Your task to perform on an android device: Search for sushi restaurants on Maps Image 0: 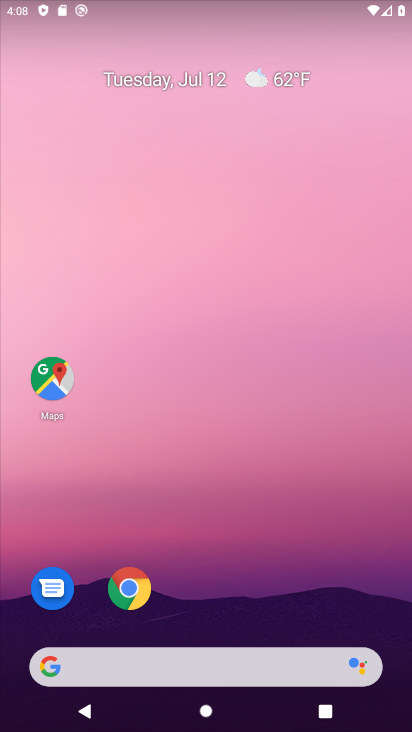
Step 0: click (211, 60)
Your task to perform on an android device: Search for sushi restaurants on Maps Image 1: 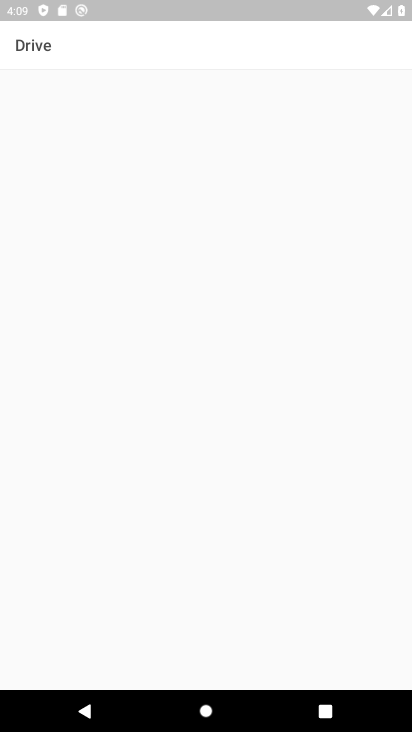
Step 1: press home button
Your task to perform on an android device: Search for sushi restaurants on Maps Image 2: 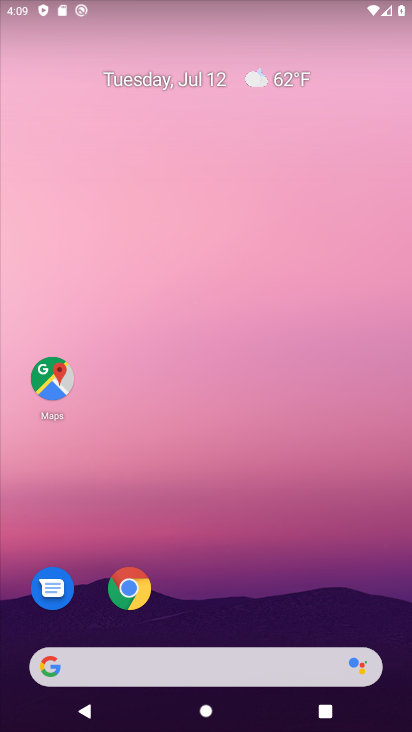
Step 2: drag from (175, 650) to (291, 43)
Your task to perform on an android device: Search for sushi restaurants on Maps Image 3: 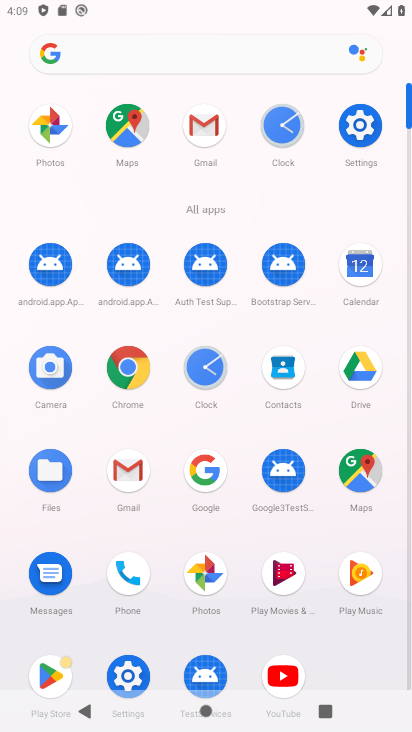
Step 3: click (360, 477)
Your task to perform on an android device: Search for sushi restaurants on Maps Image 4: 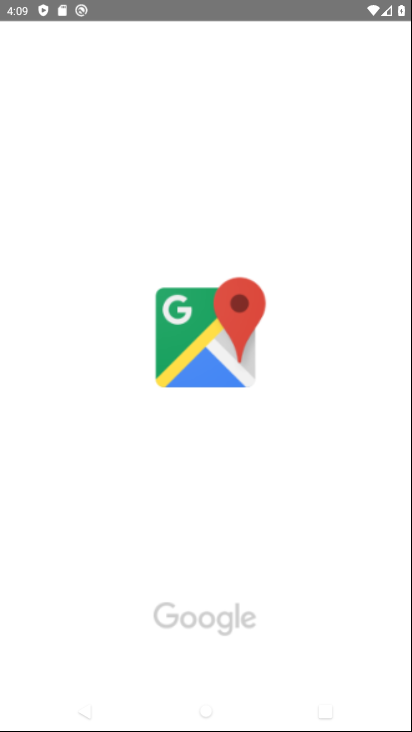
Step 4: task complete